Your task to perform on an android device: Open battery settings Image 0: 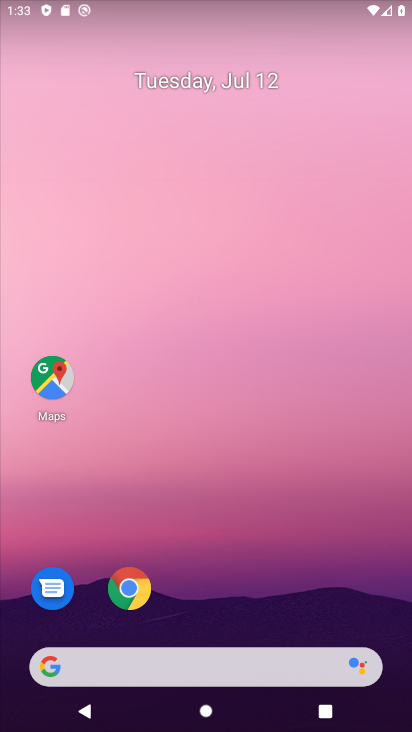
Step 0: drag from (224, 10) to (278, 520)
Your task to perform on an android device: Open battery settings Image 1: 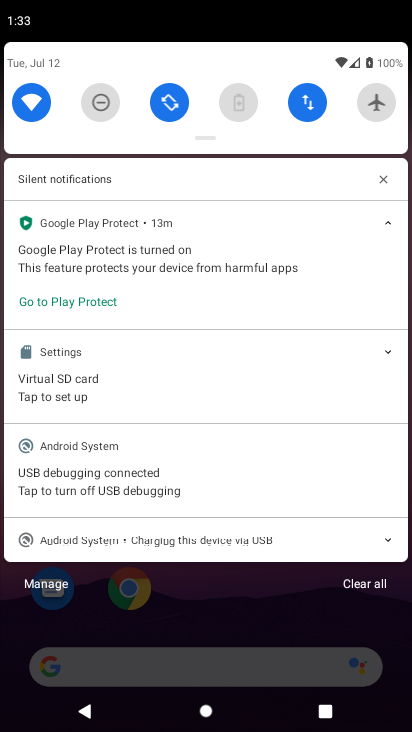
Step 1: click (237, 112)
Your task to perform on an android device: Open battery settings Image 2: 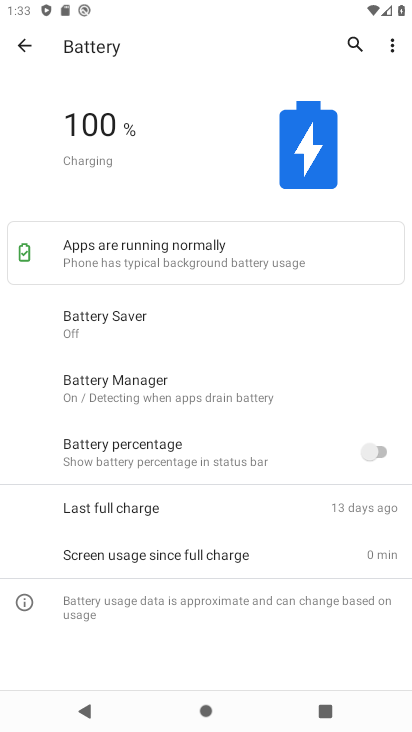
Step 2: task complete